Your task to perform on an android device: Open the map Image 0: 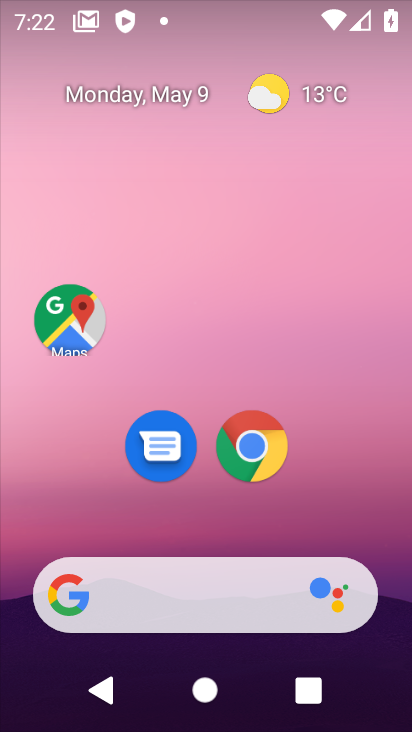
Step 0: click (70, 330)
Your task to perform on an android device: Open the map Image 1: 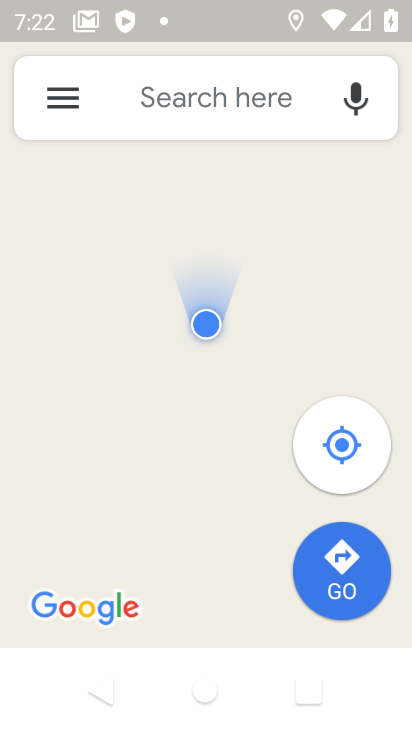
Step 1: task complete